Your task to perform on an android device: star an email in the gmail app Image 0: 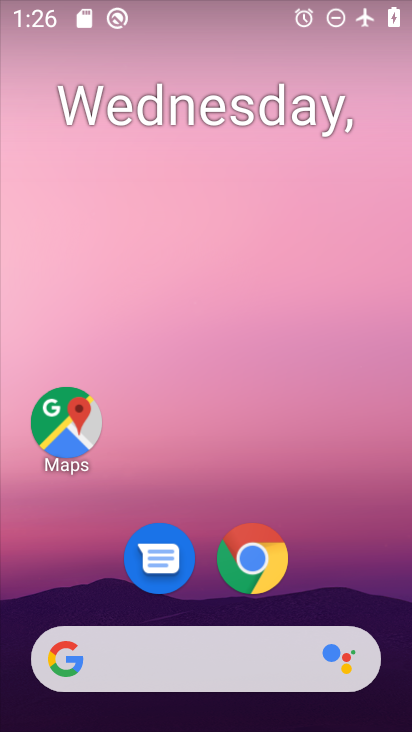
Step 0: drag from (403, 649) to (301, 46)
Your task to perform on an android device: star an email in the gmail app Image 1: 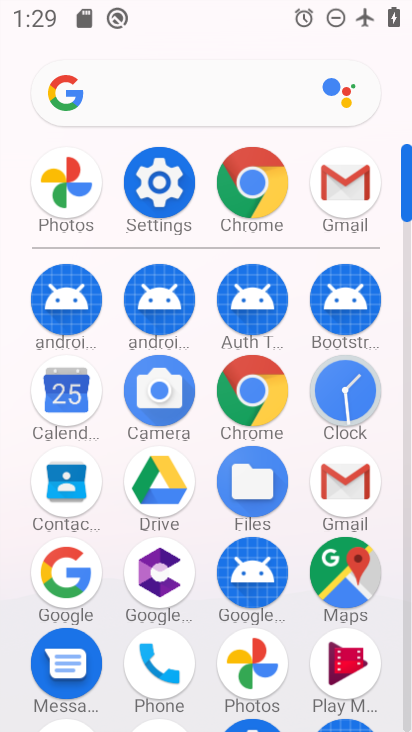
Step 1: click (353, 488)
Your task to perform on an android device: star an email in the gmail app Image 2: 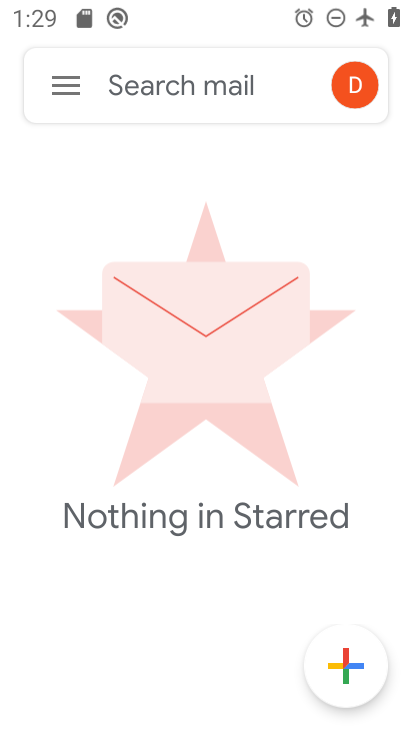
Step 2: task complete